Your task to perform on an android device: Go to CNN.com Image 0: 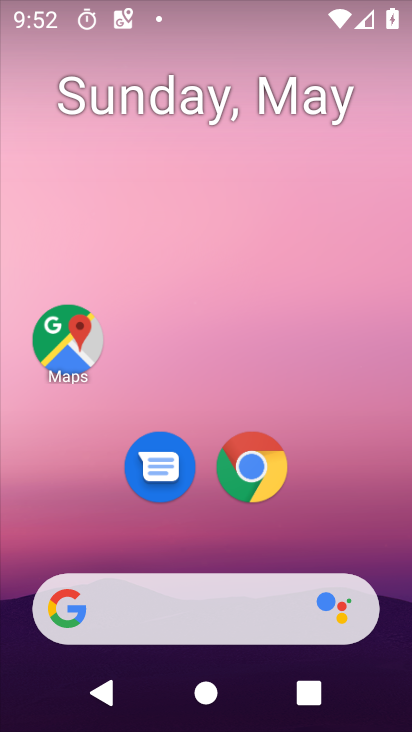
Step 0: click (251, 484)
Your task to perform on an android device: Go to CNN.com Image 1: 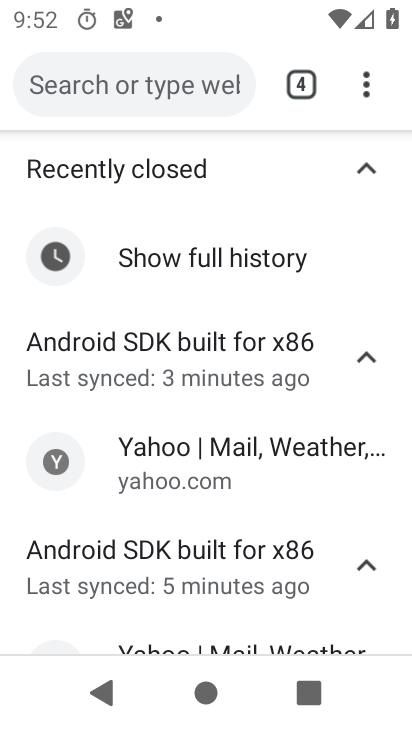
Step 1: click (185, 76)
Your task to perform on an android device: Go to CNN.com Image 2: 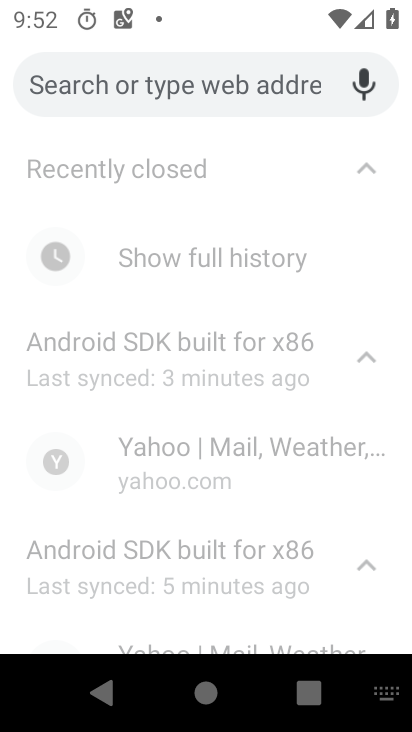
Step 2: type "CNN.com"
Your task to perform on an android device: Go to CNN.com Image 3: 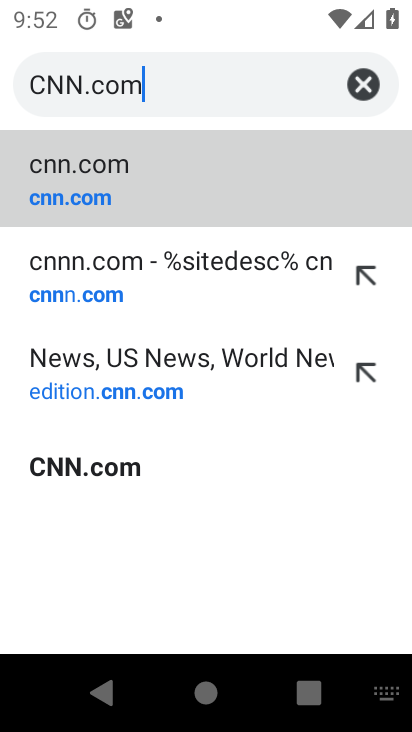
Step 3: click (148, 188)
Your task to perform on an android device: Go to CNN.com Image 4: 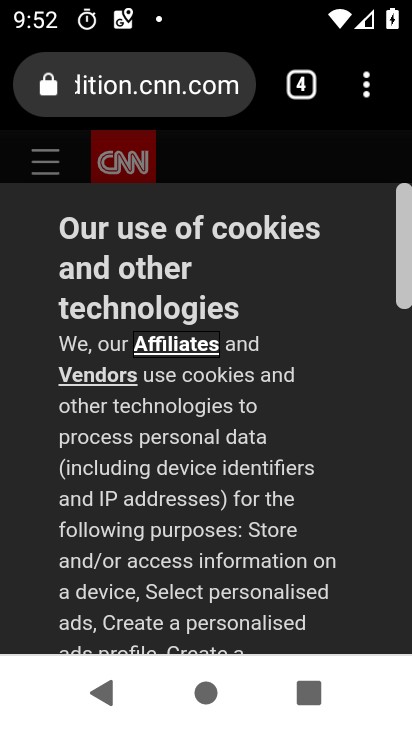
Step 4: task complete